Your task to perform on an android device: Go to calendar. Show me events next week Image 0: 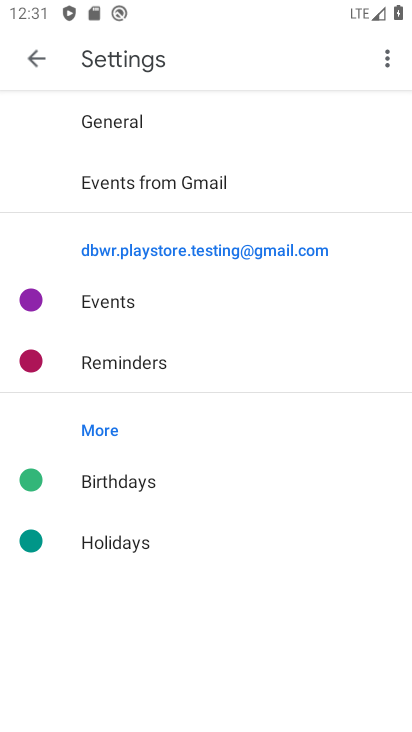
Step 0: press home button
Your task to perform on an android device: Go to calendar. Show me events next week Image 1: 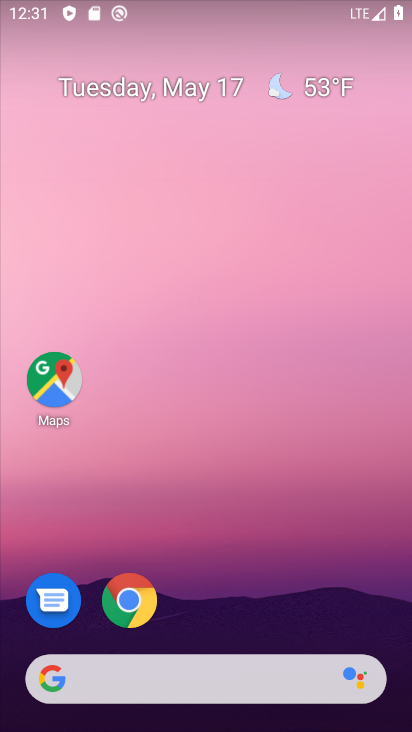
Step 1: drag from (392, 141) to (381, 390)
Your task to perform on an android device: Go to calendar. Show me events next week Image 2: 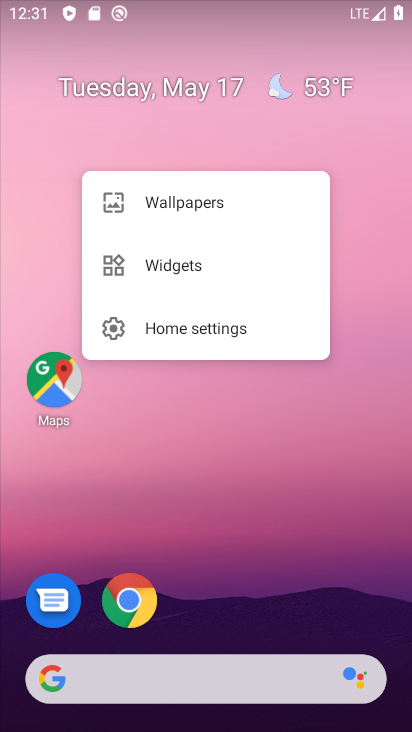
Step 2: drag from (200, 597) to (353, 1)
Your task to perform on an android device: Go to calendar. Show me events next week Image 3: 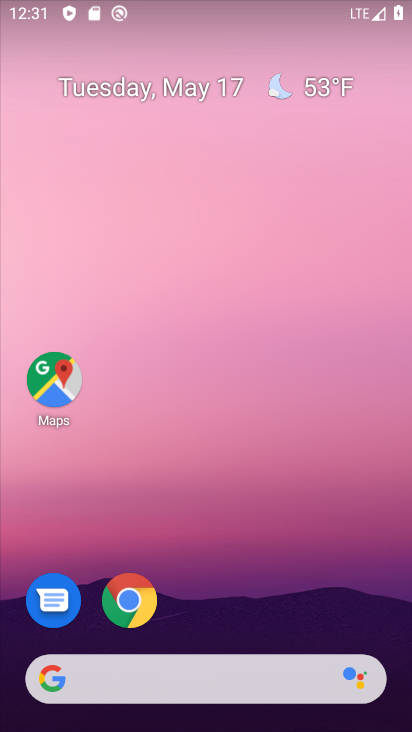
Step 3: drag from (247, 316) to (274, 28)
Your task to perform on an android device: Go to calendar. Show me events next week Image 4: 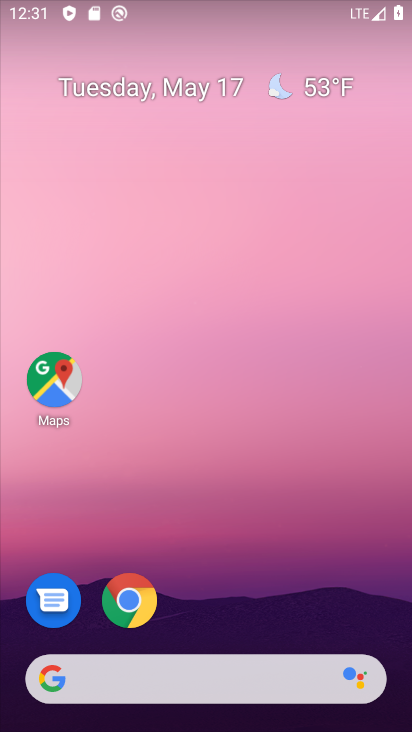
Step 4: drag from (187, 621) to (234, 246)
Your task to perform on an android device: Go to calendar. Show me events next week Image 5: 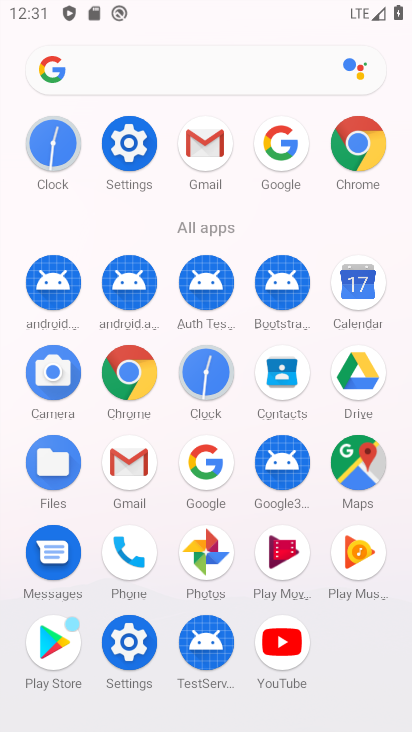
Step 5: click (344, 320)
Your task to perform on an android device: Go to calendar. Show me events next week Image 6: 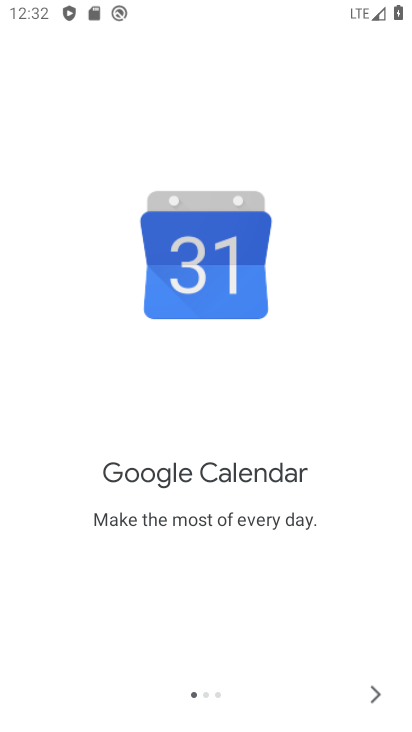
Step 6: click (379, 692)
Your task to perform on an android device: Go to calendar. Show me events next week Image 7: 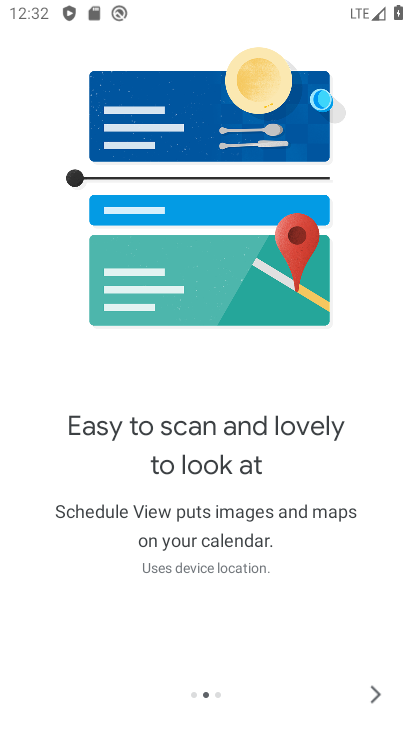
Step 7: click (371, 698)
Your task to perform on an android device: Go to calendar. Show me events next week Image 8: 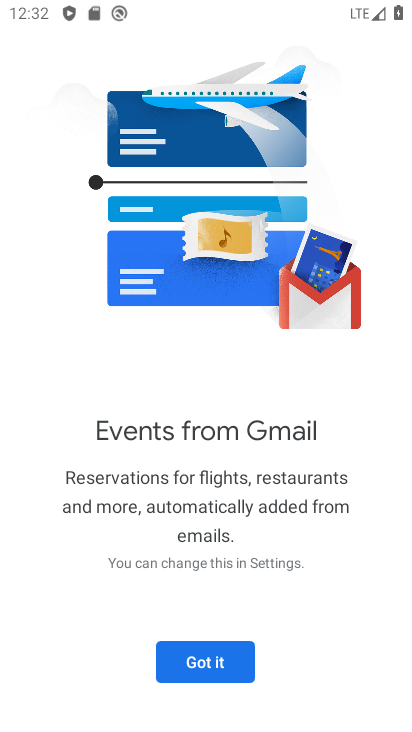
Step 8: click (235, 661)
Your task to perform on an android device: Go to calendar. Show me events next week Image 9: 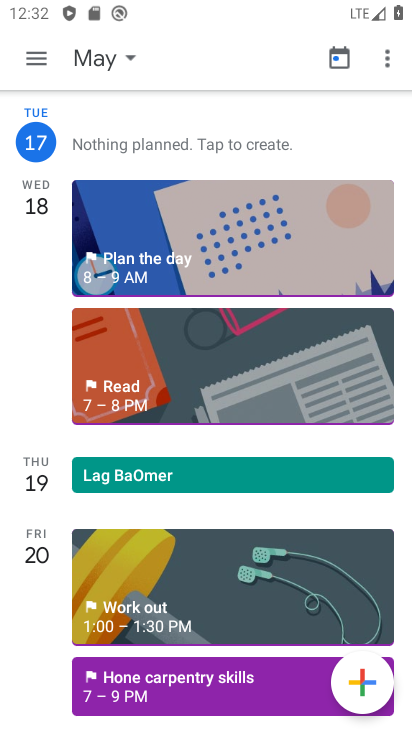
Step 9: click (36, 52)
Your task to perform on an android device: Go to calendar. Show me events next week Image 10: 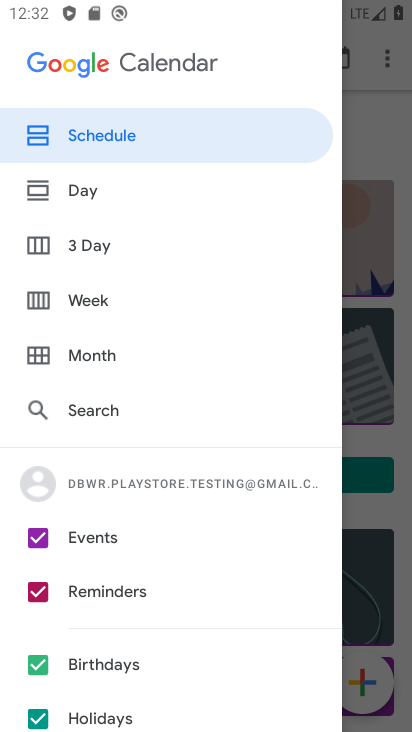
Step 10: click (80, 308)
Your task to perform on an android device: Go to calendar. Show me events next week Image 11: 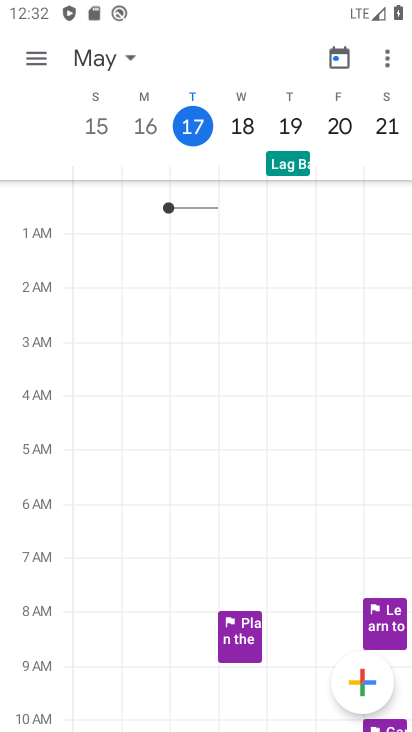
Step 11: click (100, 64)
Your task to perform on an android device: Go to calendar. Show me events next week Image 12: 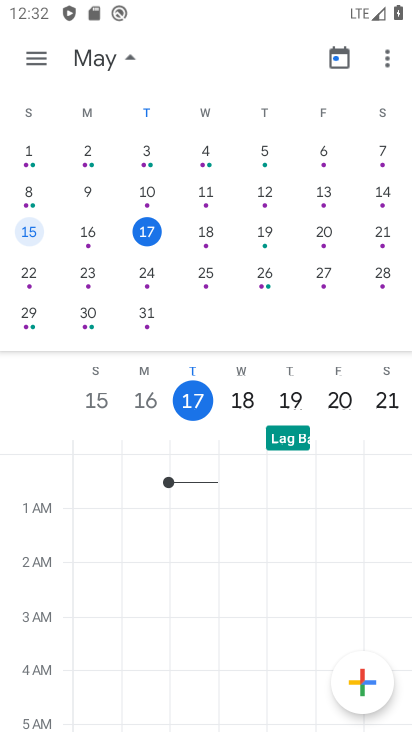
Step 12: click (32, 274)
Your task to perform on an android device: Go to calendar. Show me events next week Image 13: 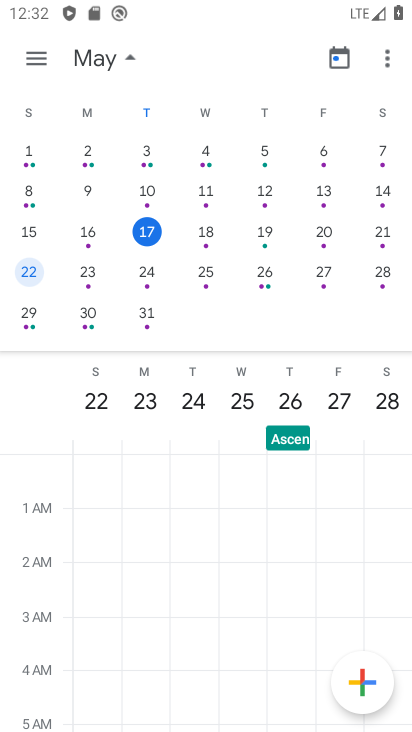
Step 13: task complete